Your task to perform on an android device: open sync settings in chrome Image 0: 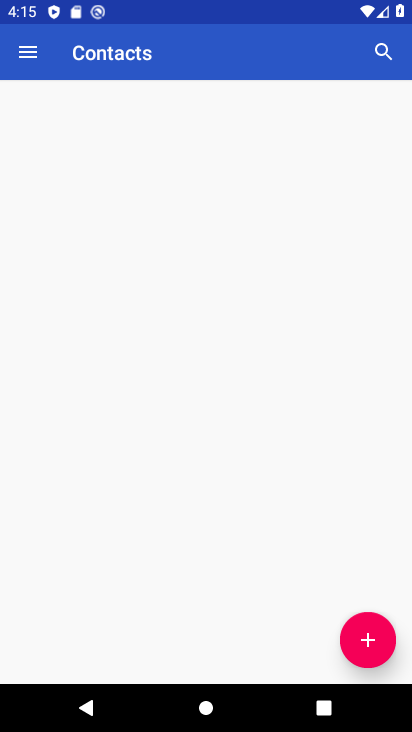
Step 0: press home button
Your task to perform on an android device: open sync settings in chrome Image 1: 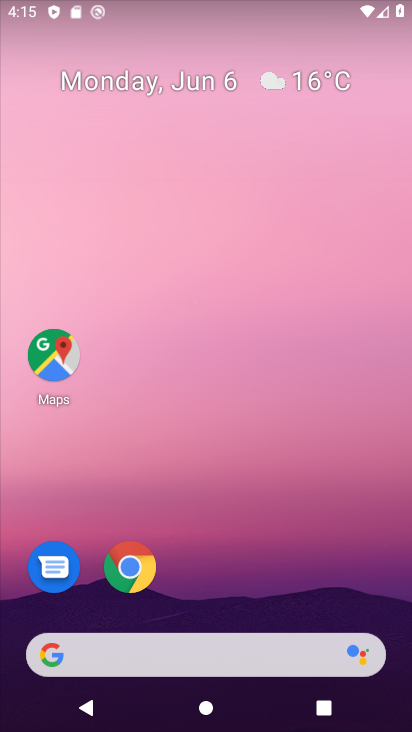
Step 1: click (136, 565)
Your task to perform on an android device: open sync settings in chrome Image 2: 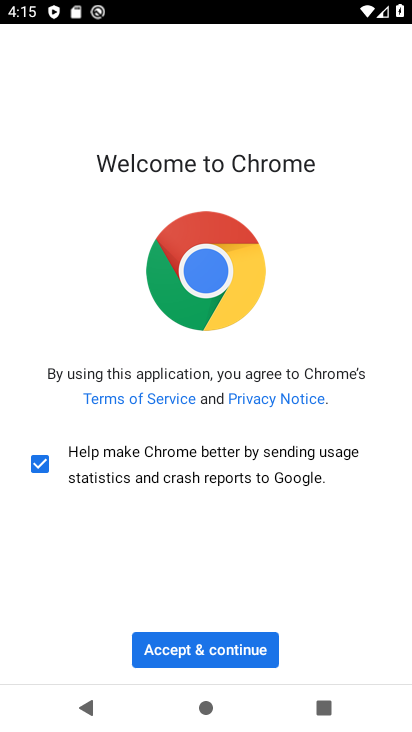
Step 2: click (230, 668)
Your task to perform on an android device: open sync settings in chrome Image 3: 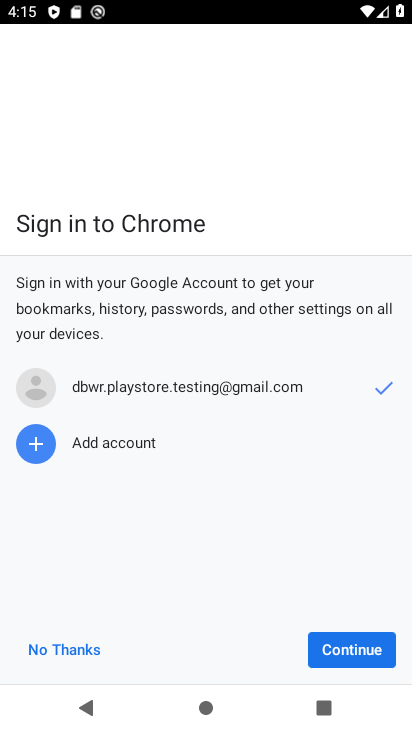
Step 3: click (354, 662)
Your task to perform on an android device: open sync settings in chrome Image 4: 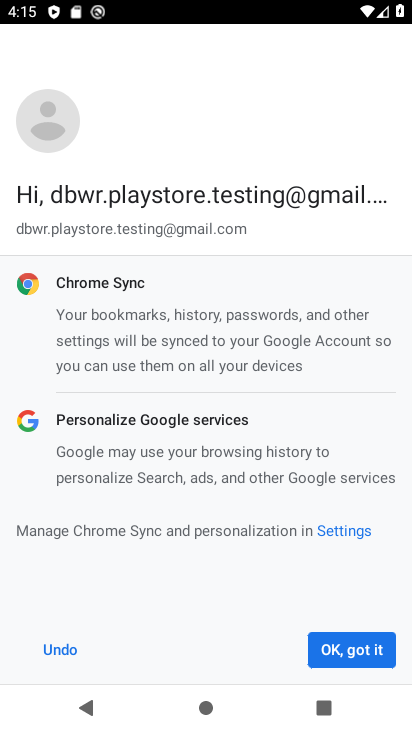
Step 4: click (340, 650)
Your task to perform on an android device: open sync settings in chrome Image 5: 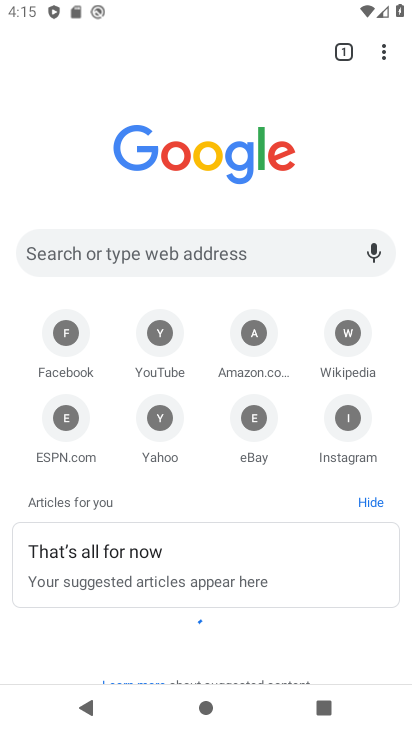
Step 5: drag from (392, 52) to (307, 431)
Your task to perform on an android device: open sync settings in chrome Image 6: 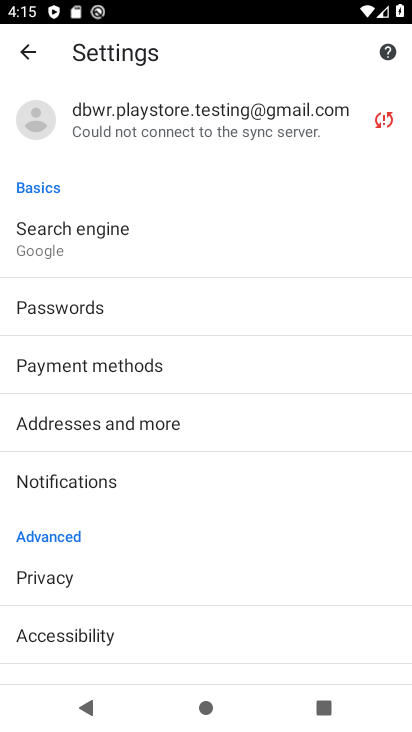
Step 6: click (253, 151)
Your task to perform on an android device: open sync settings in chrome Image 7: 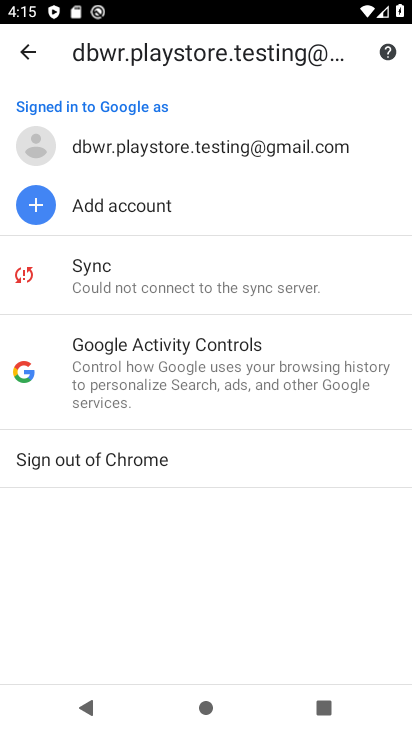
Step 7: click (251, 285)
Your task to perform on an android device: open sync settings in chrome Image 8: 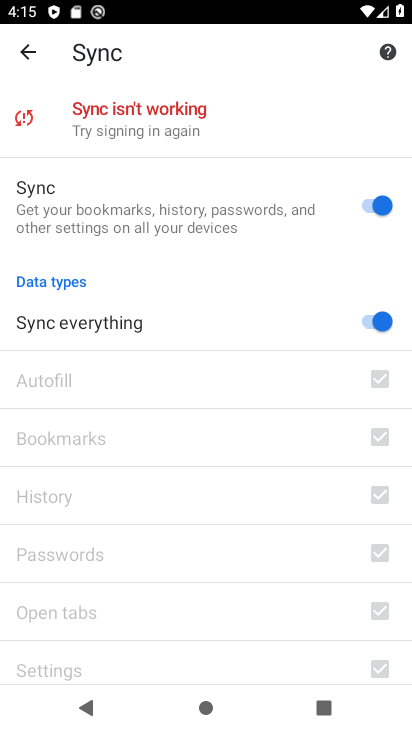
Step 8: task complete